Your task to perform on an android device: Check the news Image 0: 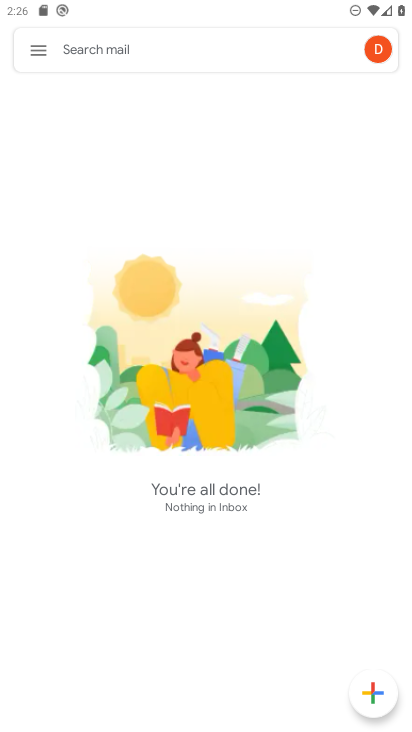
Step 0: press home button
Your task to perform on an android device: Check the news Image 1: 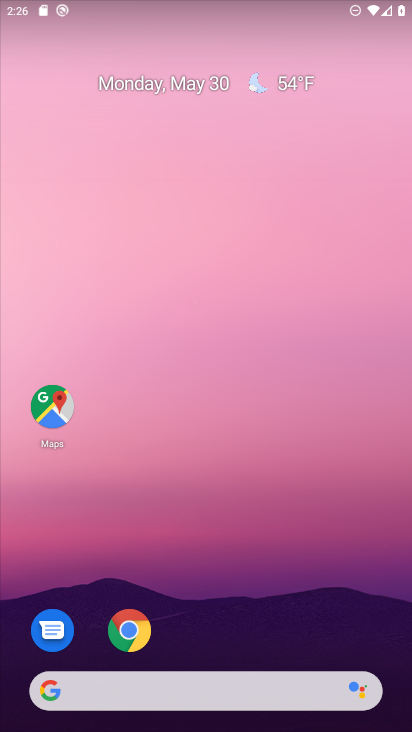
Step 1: task complete